Your task to perform on an android device: Do I have any events tomorrow? Image 0: 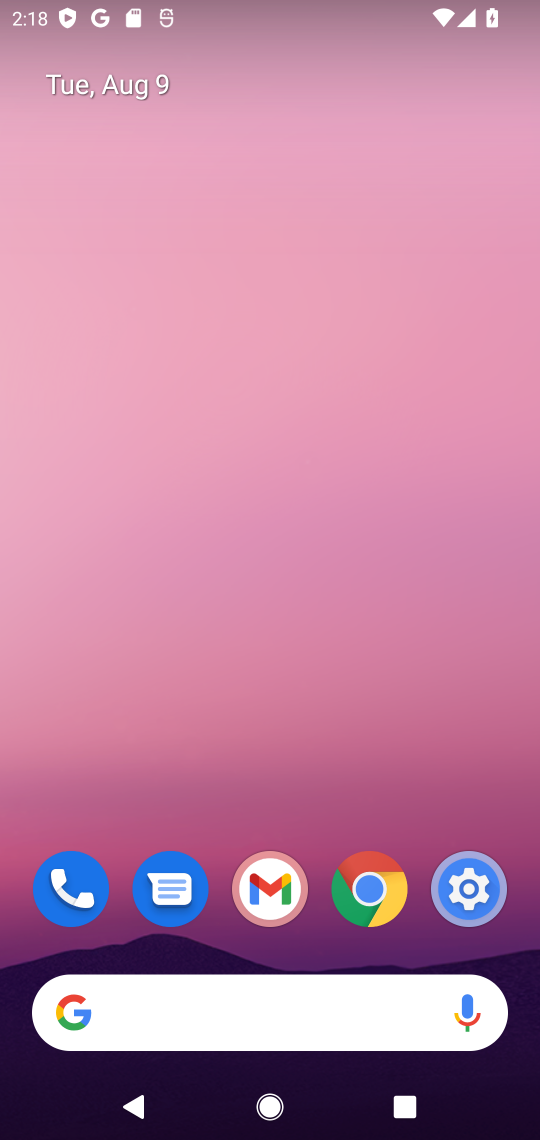
Step 0: drag from (258, 752) to (228, 3)
Your task to perform on an android device: Do I have any events tomorrow? Image 1: 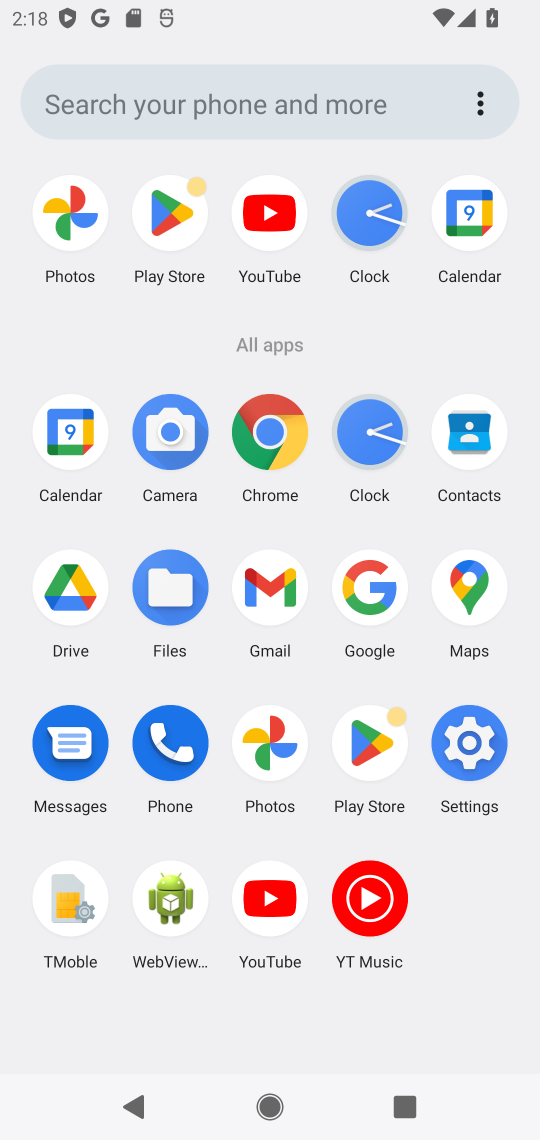
Step 1: click (479, 216)
Your task to perform on an android device: Do I have any events tomorrow? Image 2: 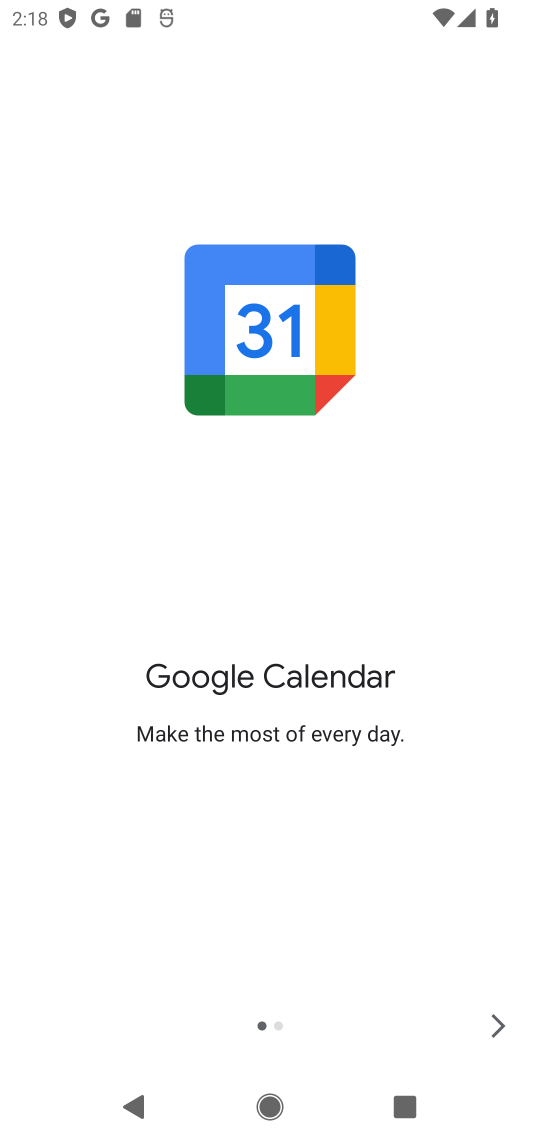
Step 2: click (495, 1027)
Your task to perform on an android device: Do I have any events tomorrow? Image 3: 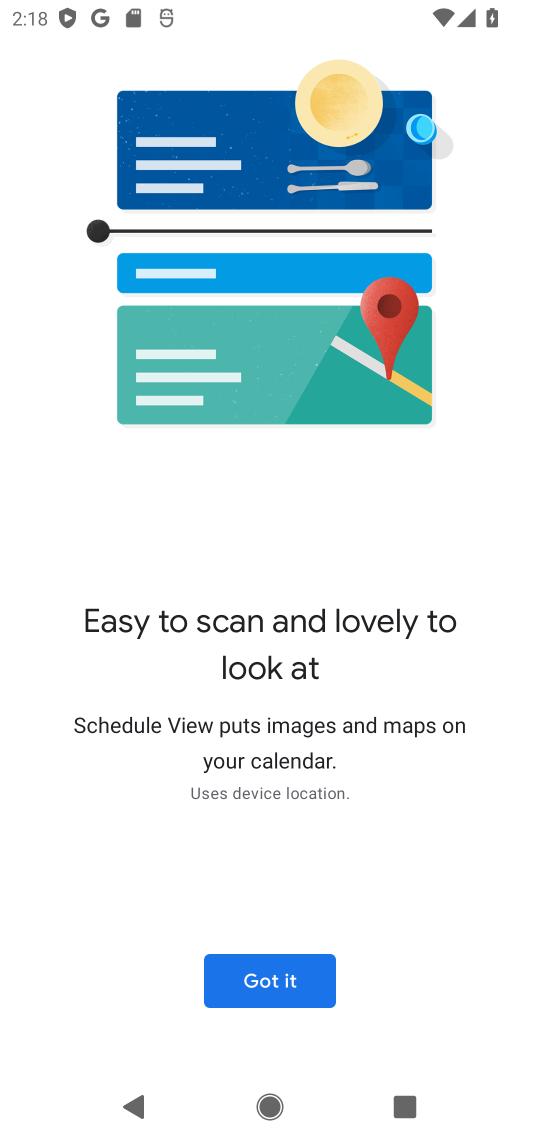
Step 3: click (329, 983)
Your task to perform on an android device: Do I have any events tomorrow? Image 4: 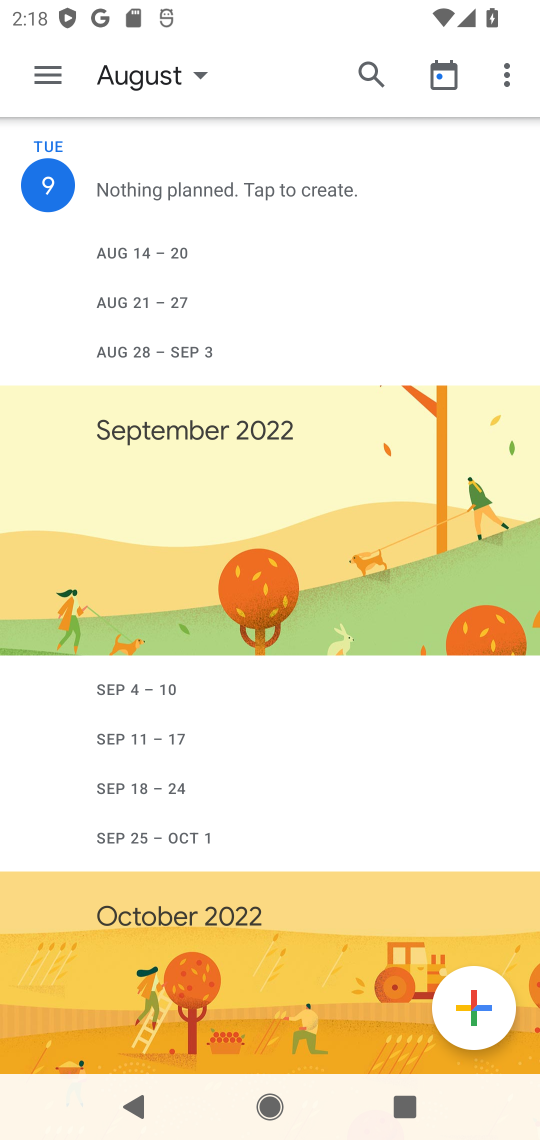
Step 4: click (50, 62)
Your task to perform on an android device: Do I have any events tomorrow? Image 5: 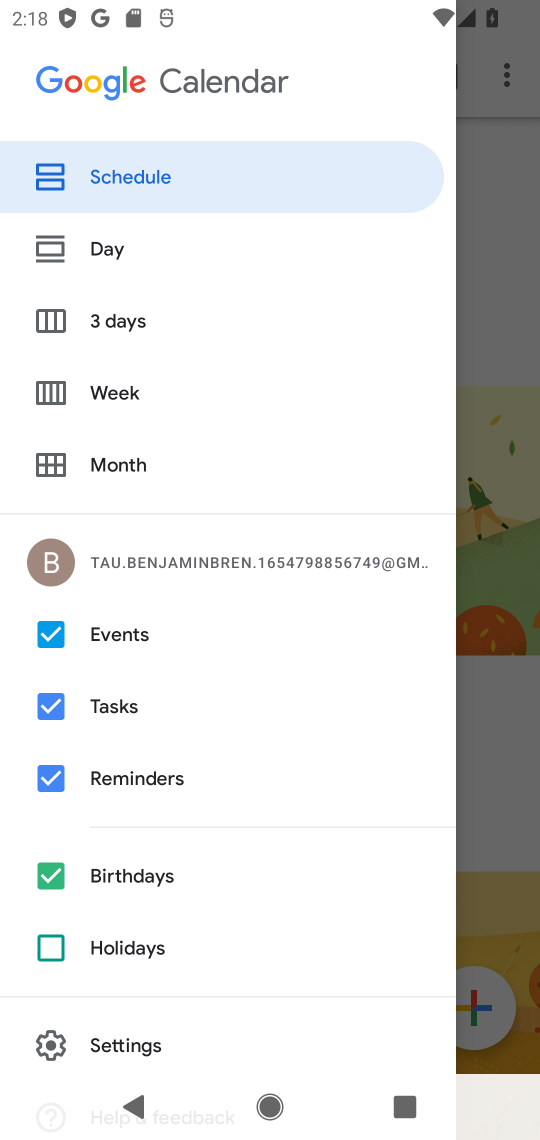
Step 5: click (89, 380)
Your task to perform on an android device: Do I have any events tomorrow? Image 6: 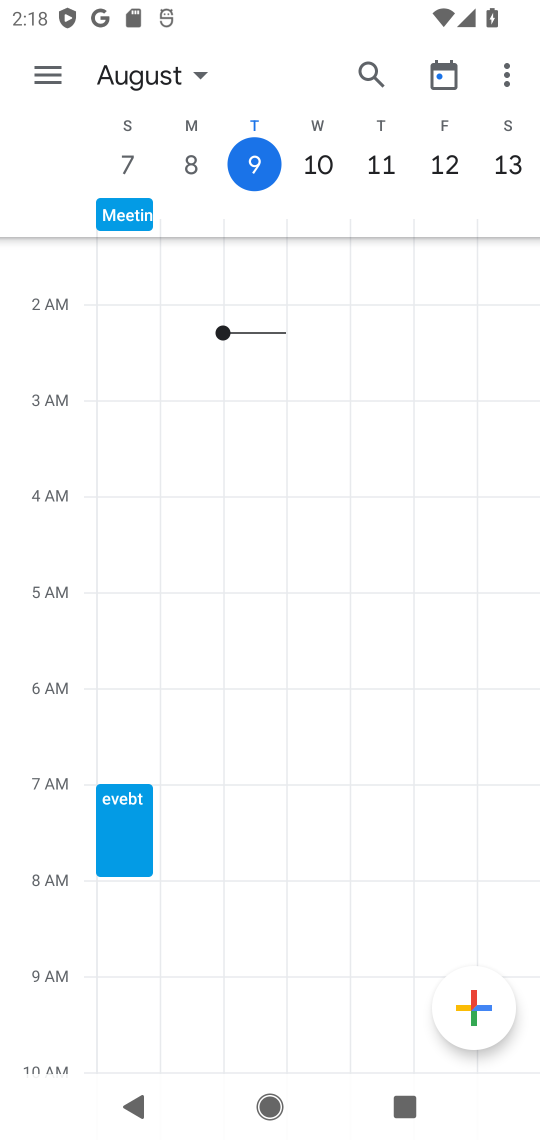
Step 6: task complete